Your task to perform on an android device: Go to eBay Image 0: 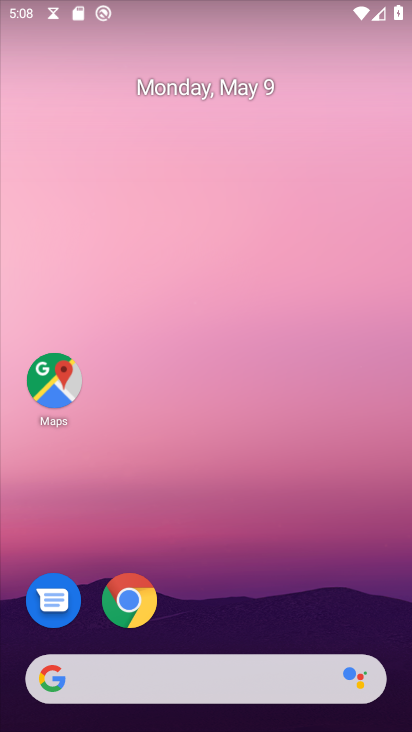
Step 0: drag from (272, 654) to (286, 16)
Your task to perform on an android device: Go to eBay Image 1: 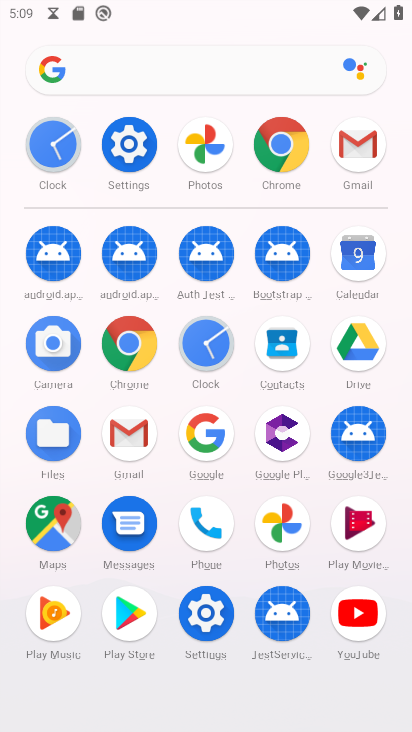
Step 1: click (144, 350)
Your task to perform on an android device: Go to eBay Image 2: 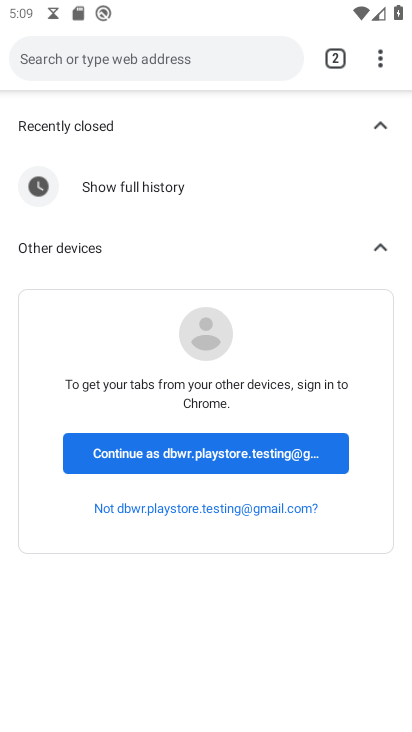
Step 2: click (220, 35)
Your task to perform on an android device: Go to eBay Image 3: 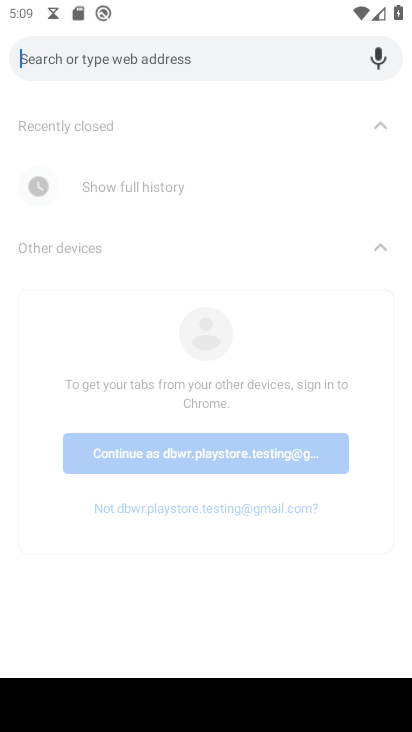
Step 3: type "ebay"
Your task to perform on an android device: Go to eBay Image 4: 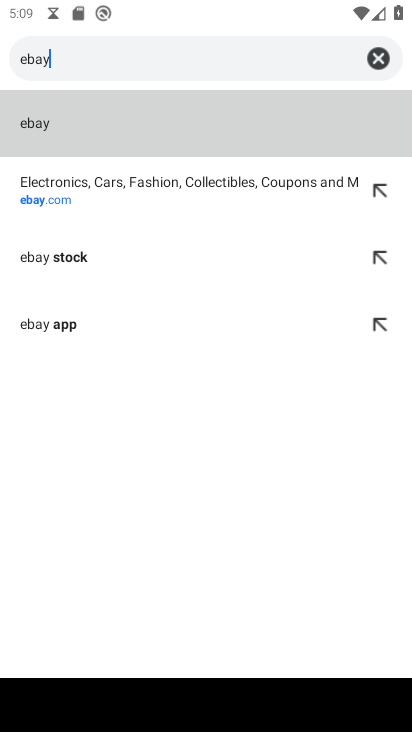
Step 4: click (247, 191)
Your task to perform on an android device: Go to eBay Image 5: 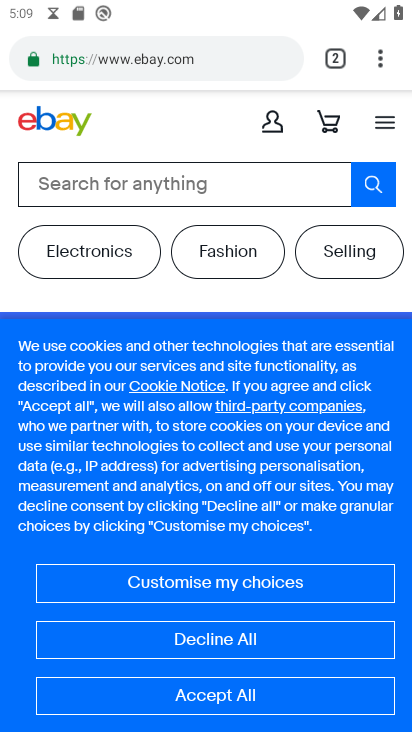
Step 5: task complete